Your task to perform on an android device: see tabs open on other devices in the chrome app Image 0: 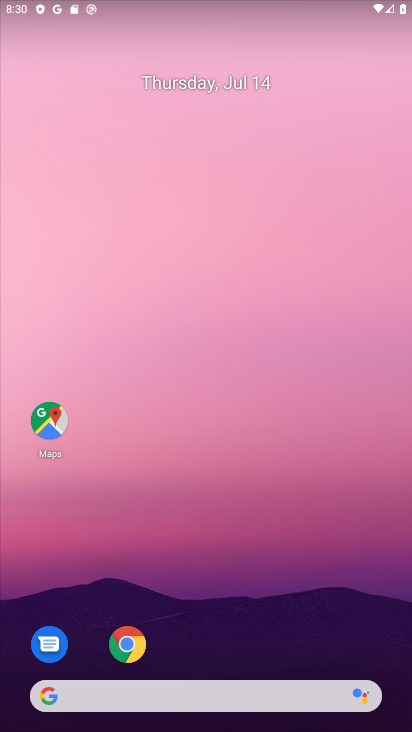
Step 0: press home button
Your task to perform on an android device: see tabs open on other devices in the chrome app Image 1: 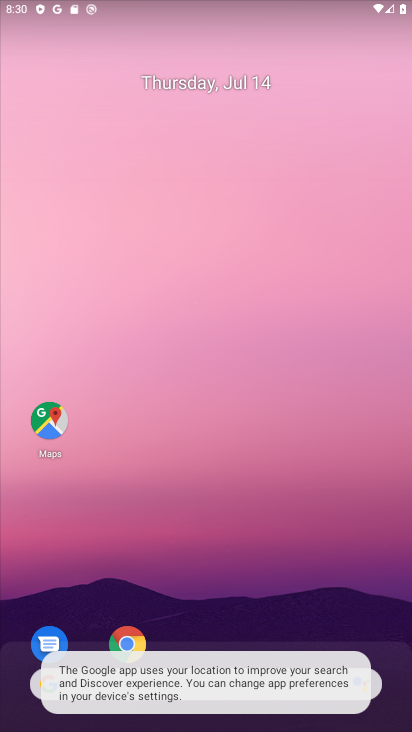
Step 1: click (124, 643)
Your task to perform on an android device: see tabs open on other devices in the chrome app Image 2: 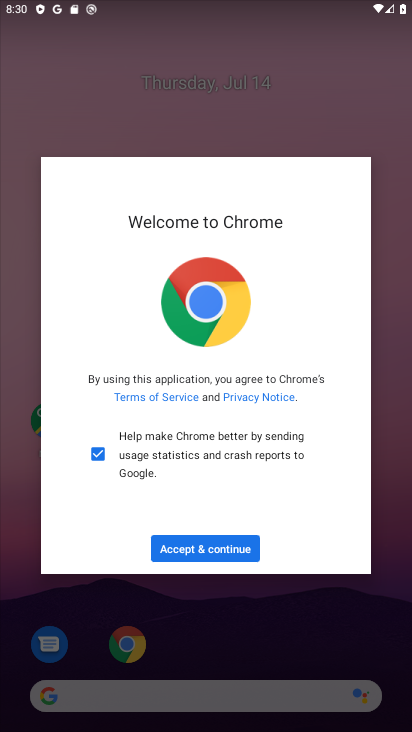
Step 2: click (201, 552)
Your task to perform on an android device: see tabs open on other devices in the chrome app Image 3: 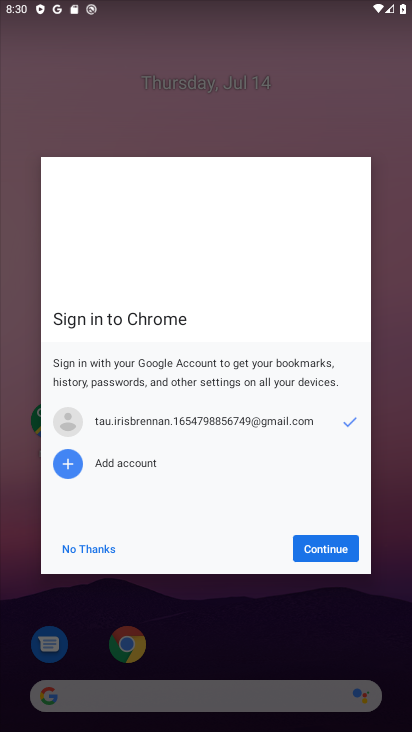
Step 3: click (326, 555)
Your task to perform on an android device: see tabs open on other devices in the chrome app Image 4: 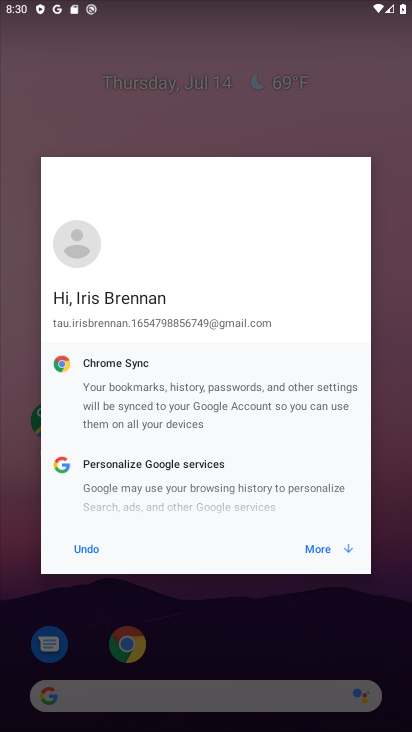
Step 4: click (326, 555)
Your task to perform on an android device: see tabs open on other devices in the chrome app Image 5: 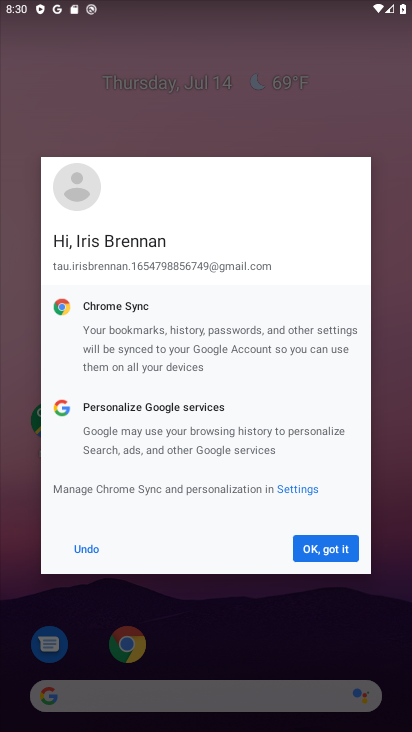
Step 5: click (326, 555)
Your task to perform on an android device: see tabs open on other devices in the chrome app Image 6: 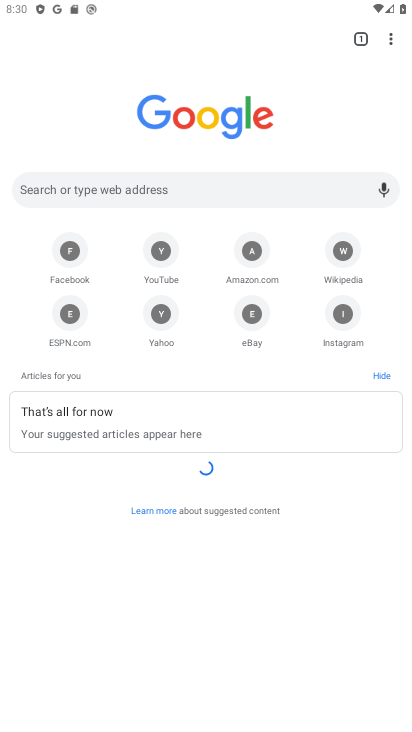
Step 6: click (397, 37)
Your task to perform on an android device: see tabs open on other devices in the chrome app Image 7: 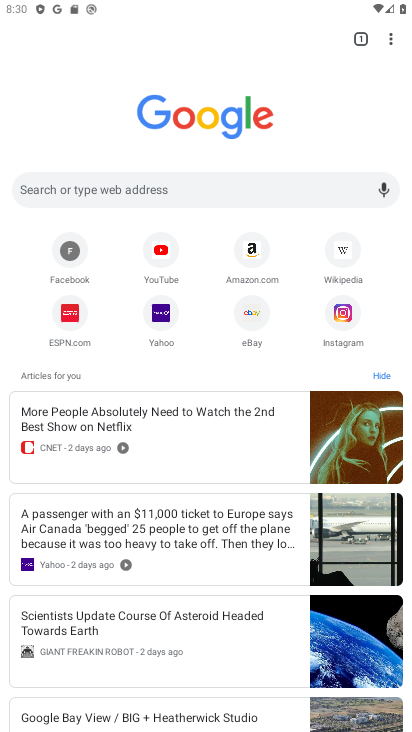
Step 7: click (393, 32)
Your task to perform on an android device: see tabs open on other devices in the chrome app Image 8: 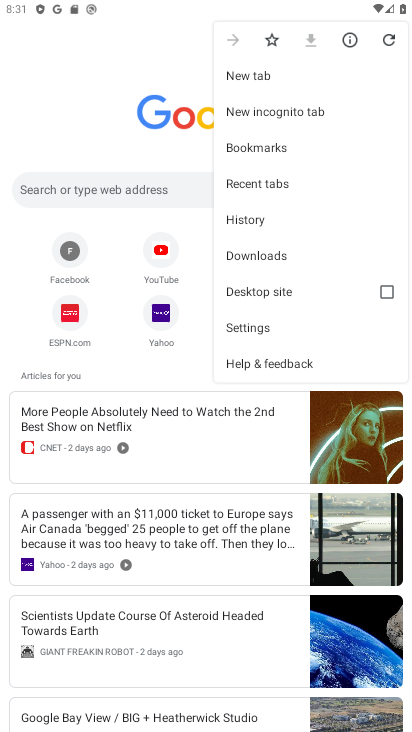
Step 8: click (290, 187)
Your task to perform on an android device: see tabs open on other devices in the chrome app Image 9: 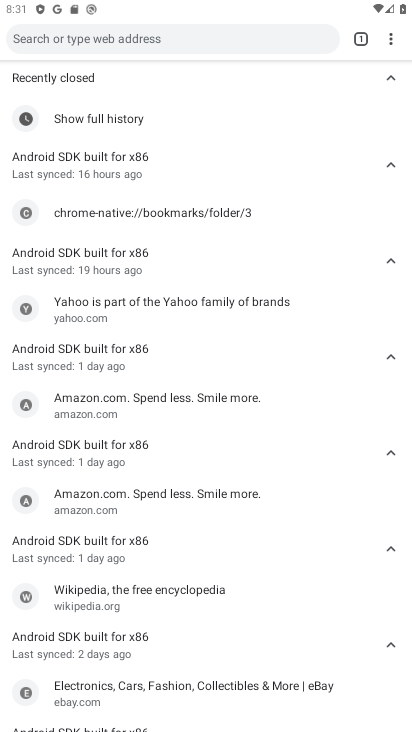
Step 9: task complete